Your task to perform on an android device: Search for Mexican restaurants on Maps Image 0: 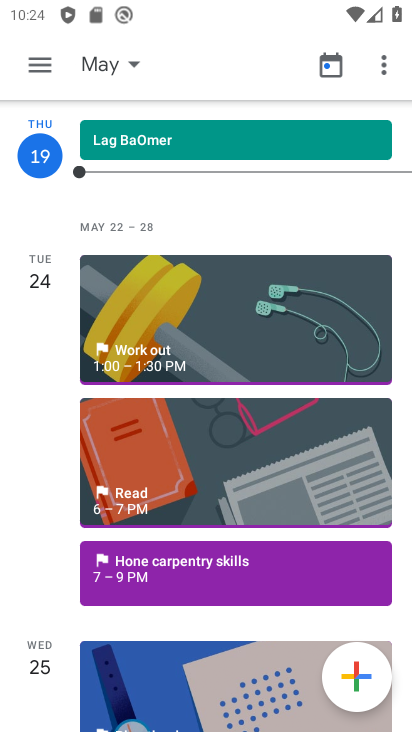
Step 0: press home button
Your task to perform on an android device: Search for Mexican restaurants on Maps Image 1: 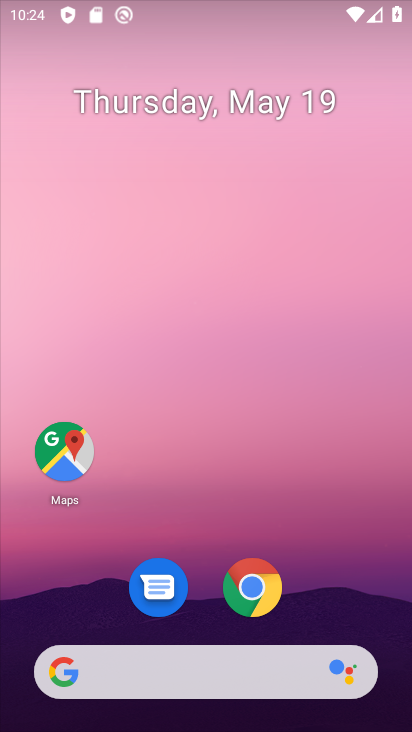
Step 1: drag from (393, 598) to (336, 173)
Your task to perform on an android device: Search for Mexican restaurants on Maps Image 2: 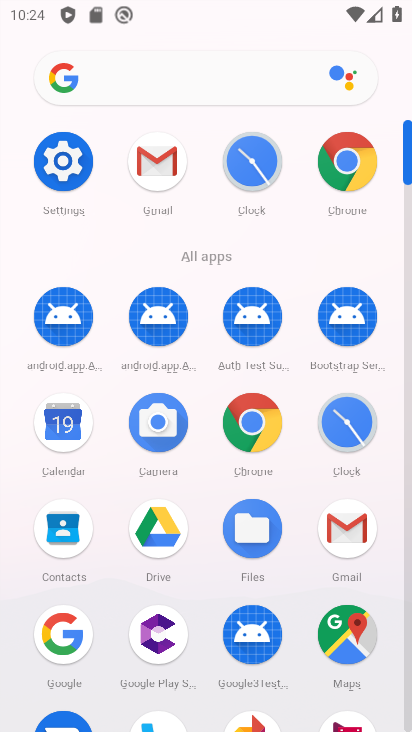
Step 2: click (342, 633)
Your task to perform on an android device: Search for Mexican restaurants on Maps Image 3: 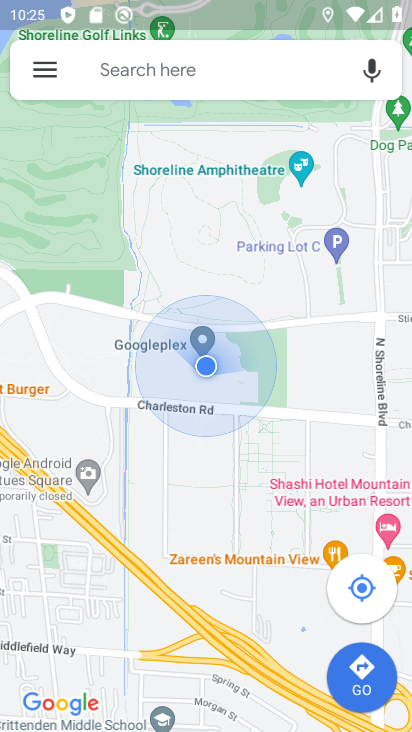
Step 3: click (132, 76)
Your task to perform on an android device: Search for Mexican restaurants on Maps Image 4: 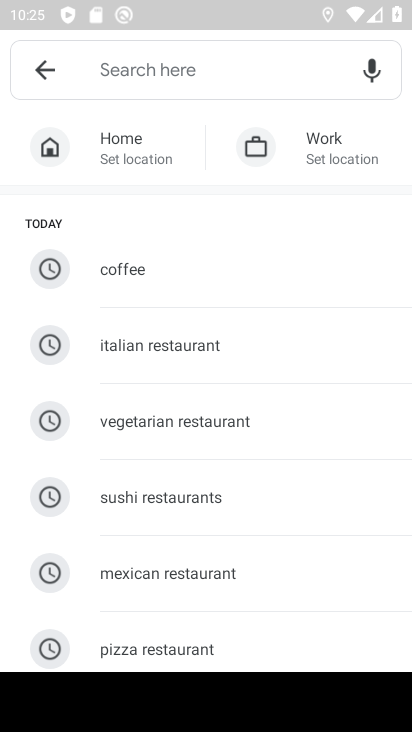
Step 4: click (227, 574)
Your task to perform on an android device: Search for Mexican restaurants on Maps Image 5: 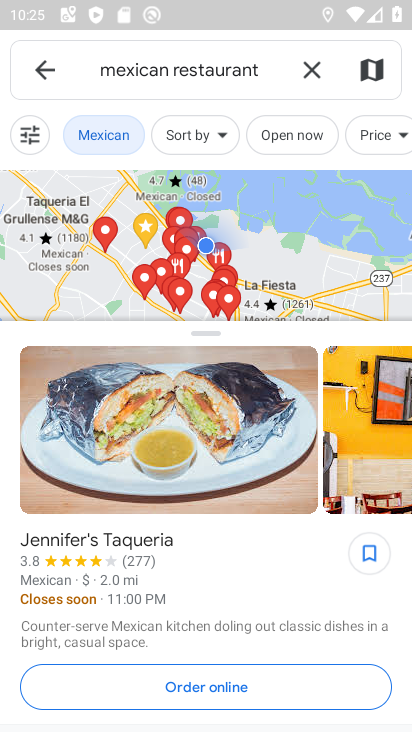
Step 5: task complete